Your task to perform on an android device: clear all cookies in the chrome app Image 0: 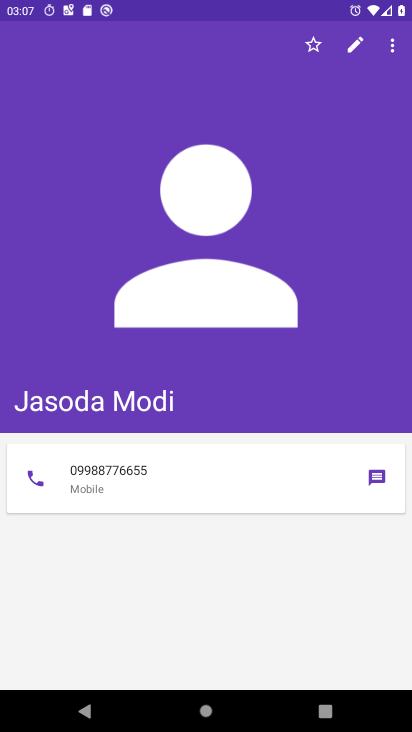
Step 0: press home button
Your task to perform on an android device: clear all cookies in the chrome app Image 1: 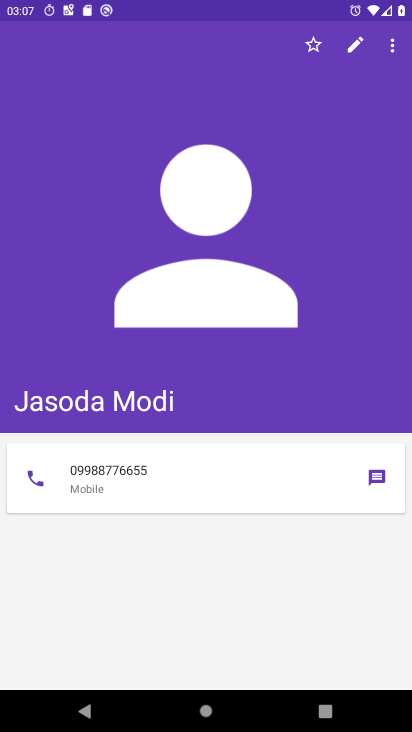
Step 1: press home button
Your task to perform on an android device: clear all cookies in the chrome app Image 2: 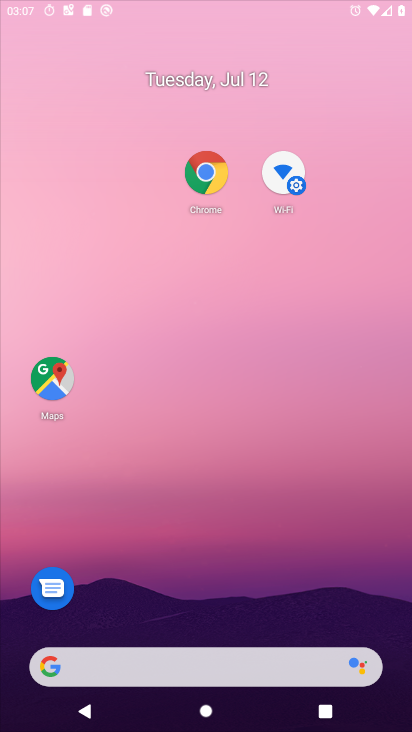
Step 2: drag from (233, 403) to (274, 121)
Your task to perform on an android device: clear all cookies in the chrome app Image 3: 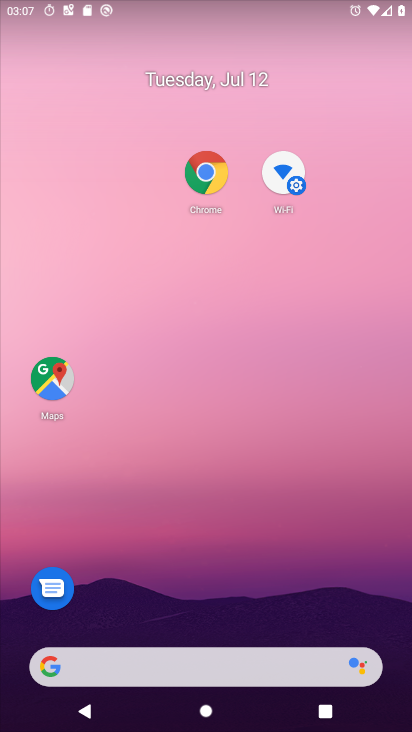
Step 3: drag from (167, 557) to (219, 51)
Your task to perform on an android device: clear all cookies in the chrome app Image 4: 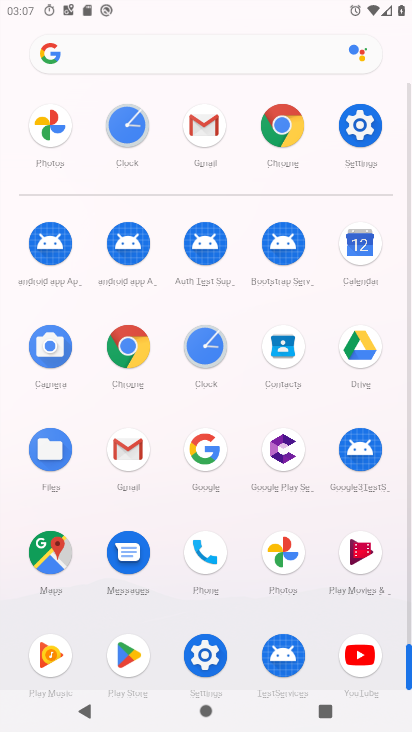
Step 4: click (130, 347)
Your task to perform on an android device: clear all cookies in the chrome app Image 5: 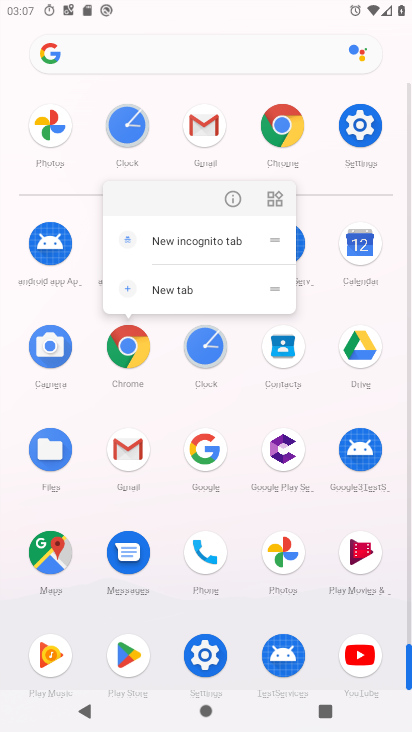
Step 5: click (232, 198)
Your task to perform on an android device: clear all cookies in the chrome app Image 6: 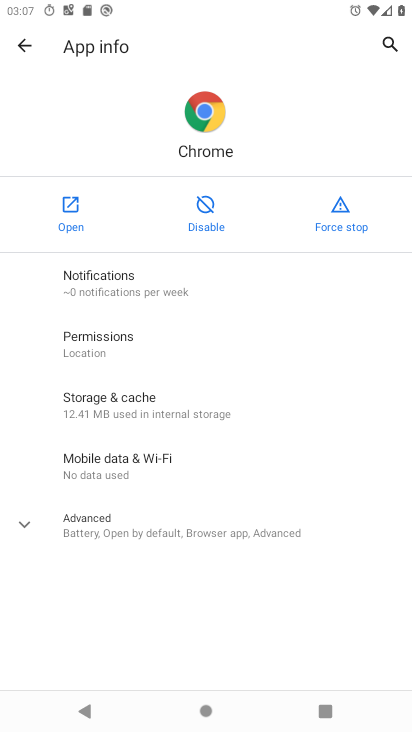
Step 6: click (66, 209)
Your task to perform on an android device: clear all cookies in the chrome app Image 7: 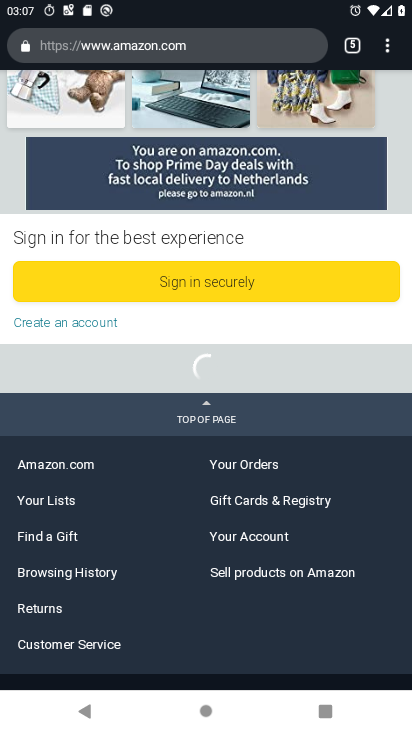
Step 7: click (388, 53)
Your task to perform on an android device: clear all cookies in the chrome app Image 8: 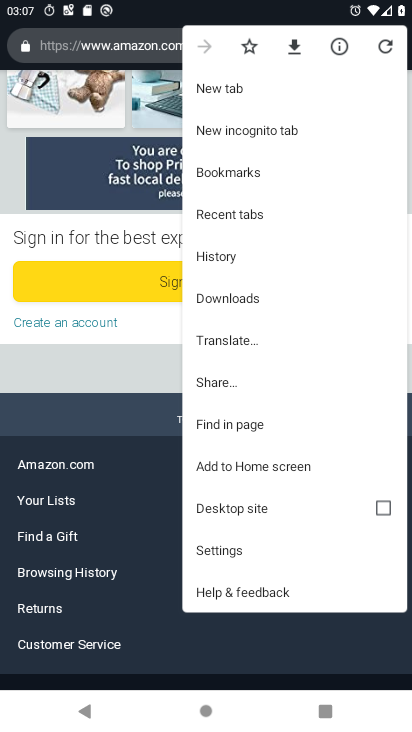
Step 8: click (218, 249)
Your task to perform on an android device: clear all cookies in the chrome app Image 9: 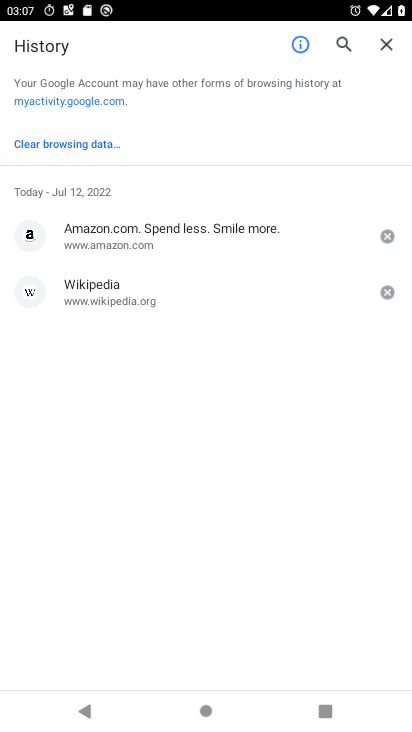
Step 9: click (41, 142)
Your task to perform on an android device: clear all cookies in the chrome app Image 10: 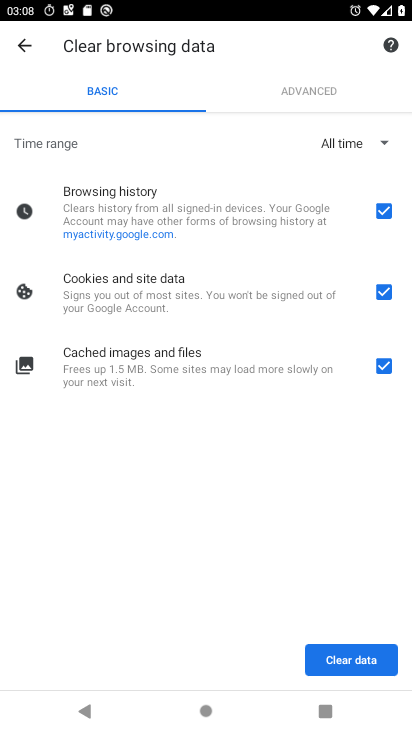
Step 10: click (347, 660)
Your task to perform on an android device: clear all cookies in the chrome app Image 11: 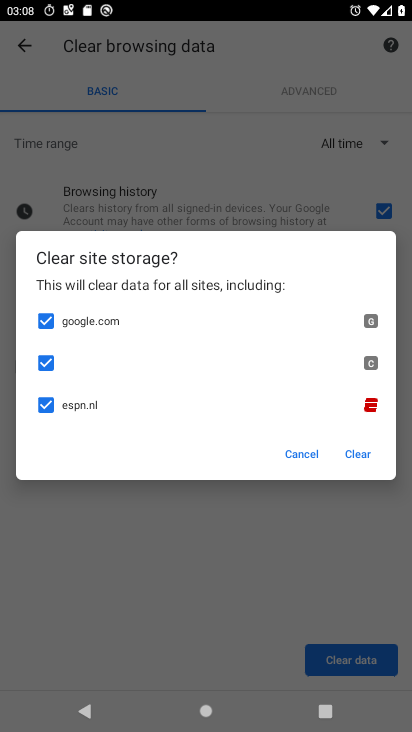
Step 11: click (349, 449)
Your task to perform on an android device: clear all cookies in the chrome app Image 12: 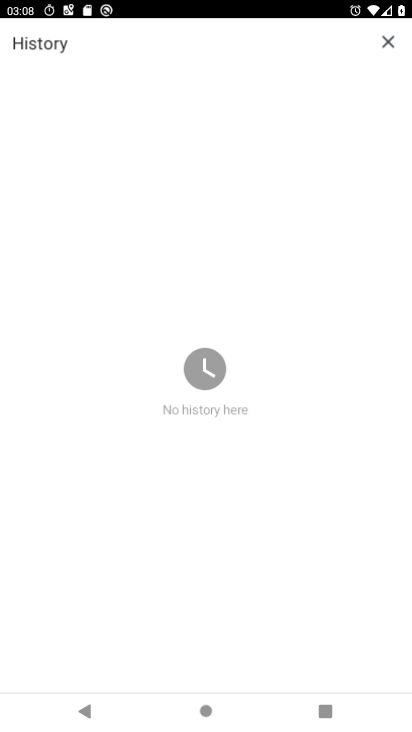
Step 12: task complete